Your task to perform on an android device: Search for vegetarian restaurants on Maps Image 0: 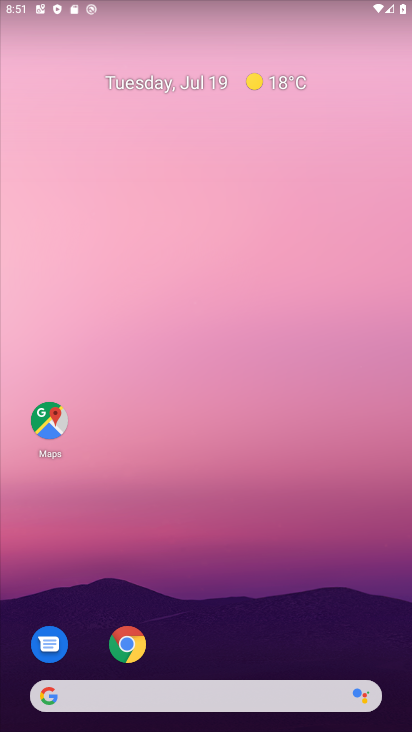
Step 0: drag from (226, 723) to (235, 196)
Your task to perform on an android device: Search for vegetarian restaurants on Maps Image 1: 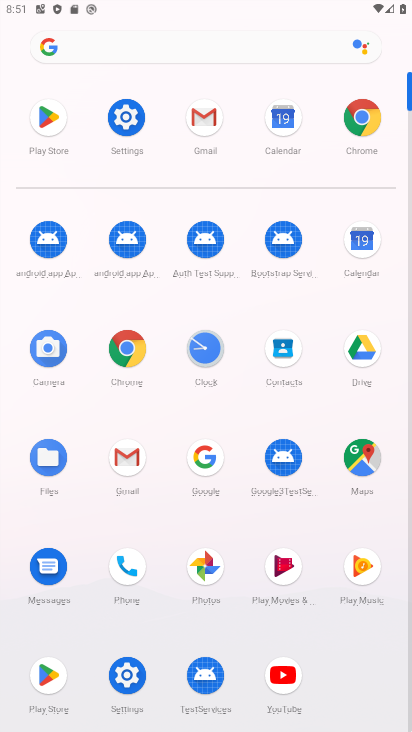
Step 1: click (370, 460)
Your task to perform on an android device: Search for vegetarian restaurants on Maps Image 2: 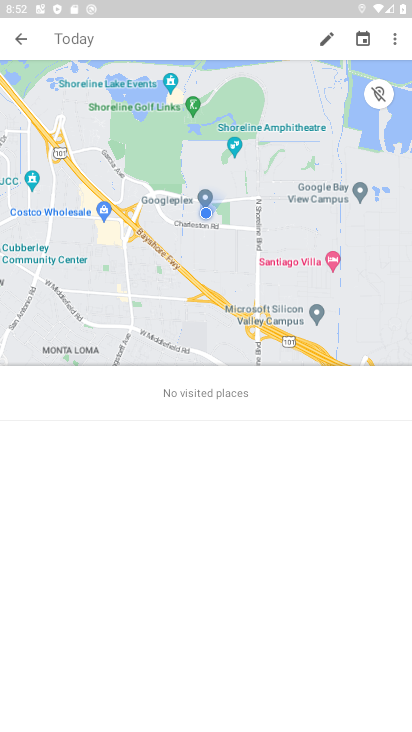
Step 2: click (19, 36)
Your task to perform on an android device: Search for vegetarian restaurants on Maps Image 3: 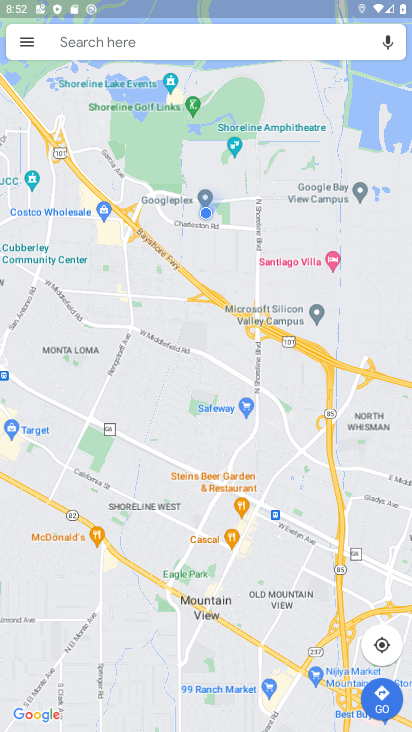
Step 3: click (147, 47)
Your task to perform on an android device: Search for vegetarian restaurants on Maps Image 4: 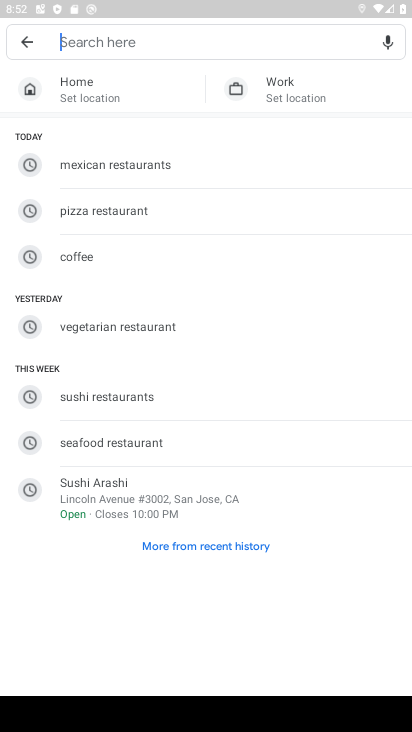
Step 4: type "vegetarian restaurants"
Your task to perform on an android device: Search for vegetarian restaurants on Maps Image 5: 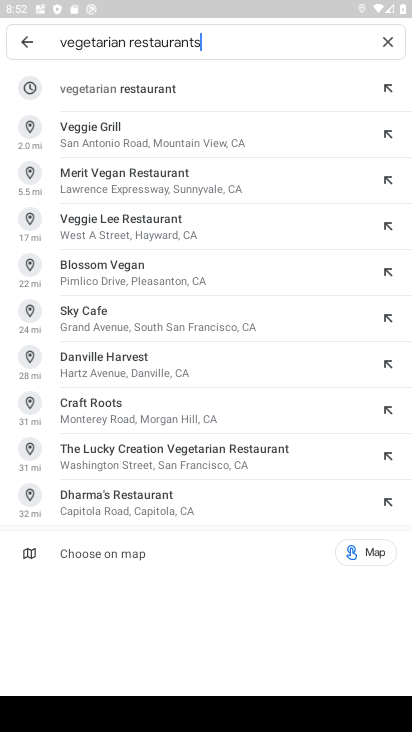
Step 5: click (127, 85)
Your task to perform on an android device: Search for vegetarian restaurants on Maps Image 6: 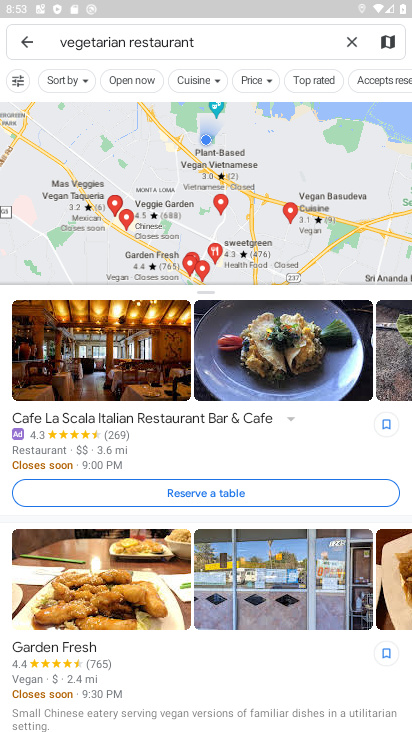
Step 6: task complete